Your task to perform on an android device: find snoozed emails in the gmail app Image 0: 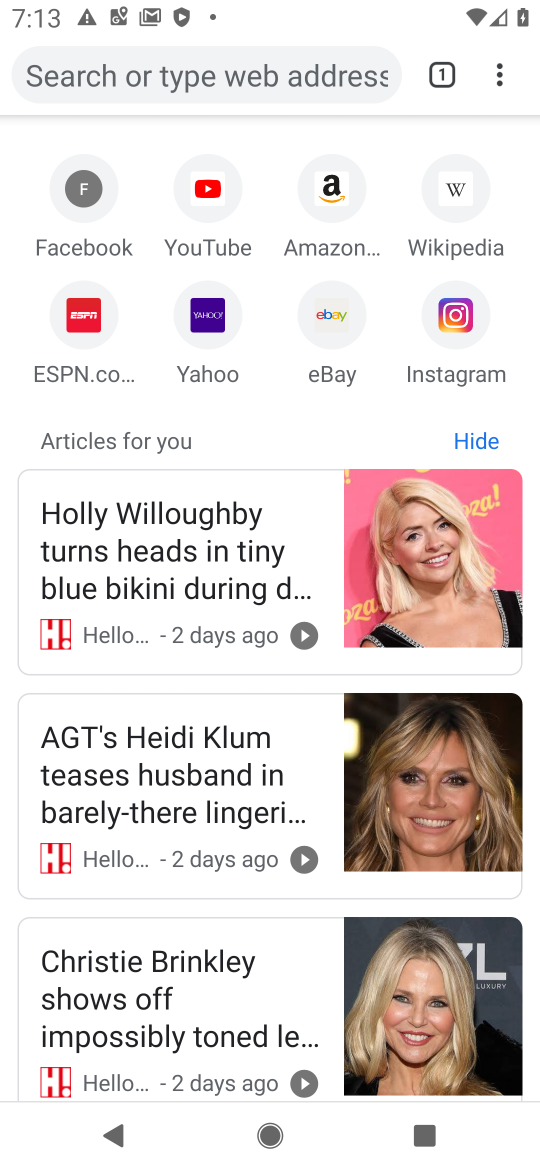
Step 0: press home button
Your task to perform on an android device: find snoozed emails in the gmail app Image 1: 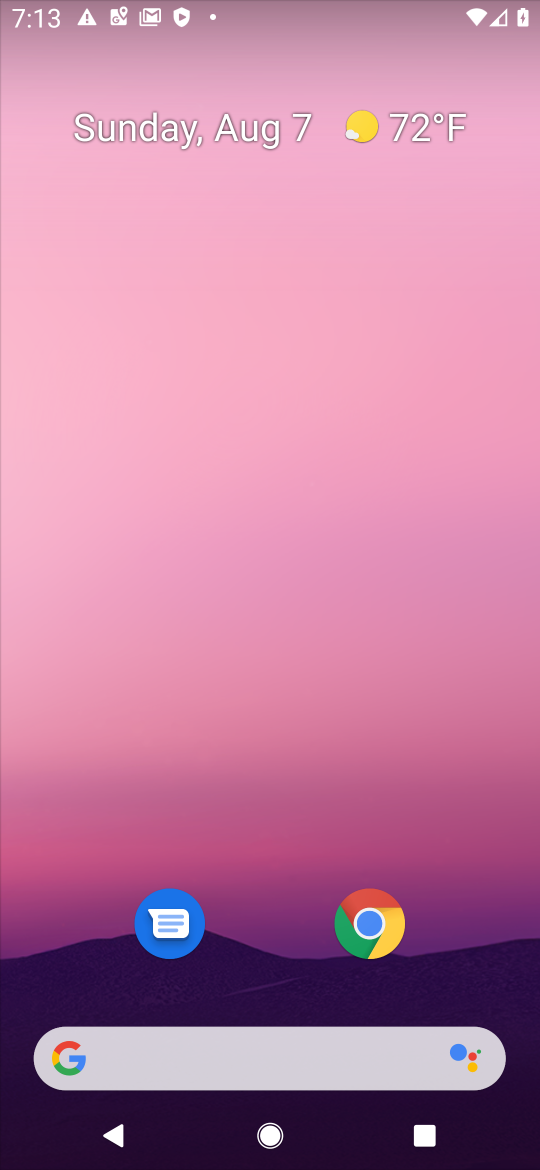
Step 1: drag from (508, 1055) to (342, 63)
Your task to perform on an android device: find snoozed emails in the gmail app Image 2: 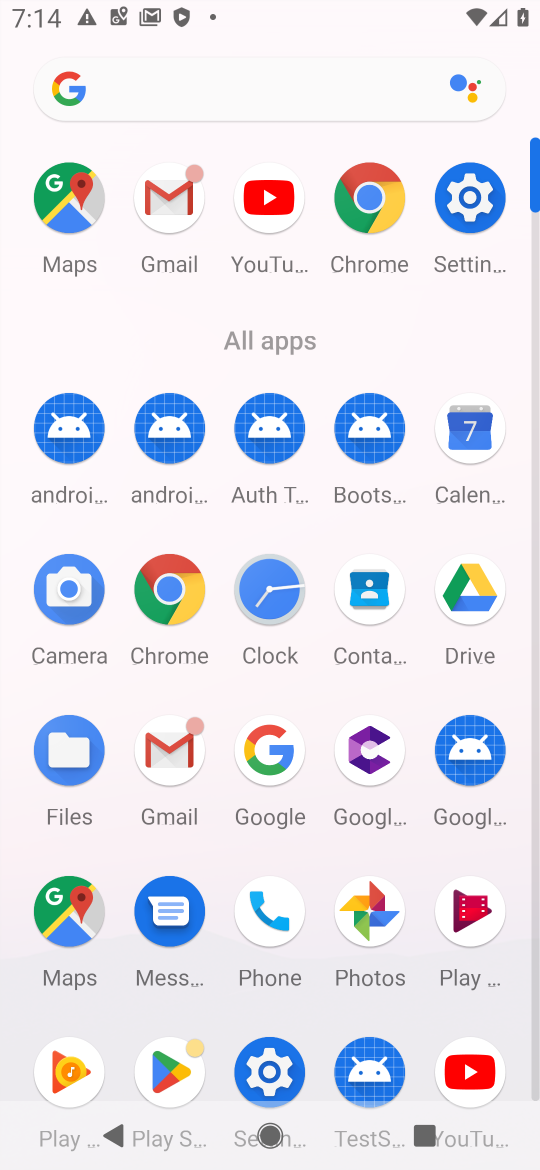
Step 2: click (161, 770)
Your task to perform on an android device: find snoozed emails in the gmail app Image 3: 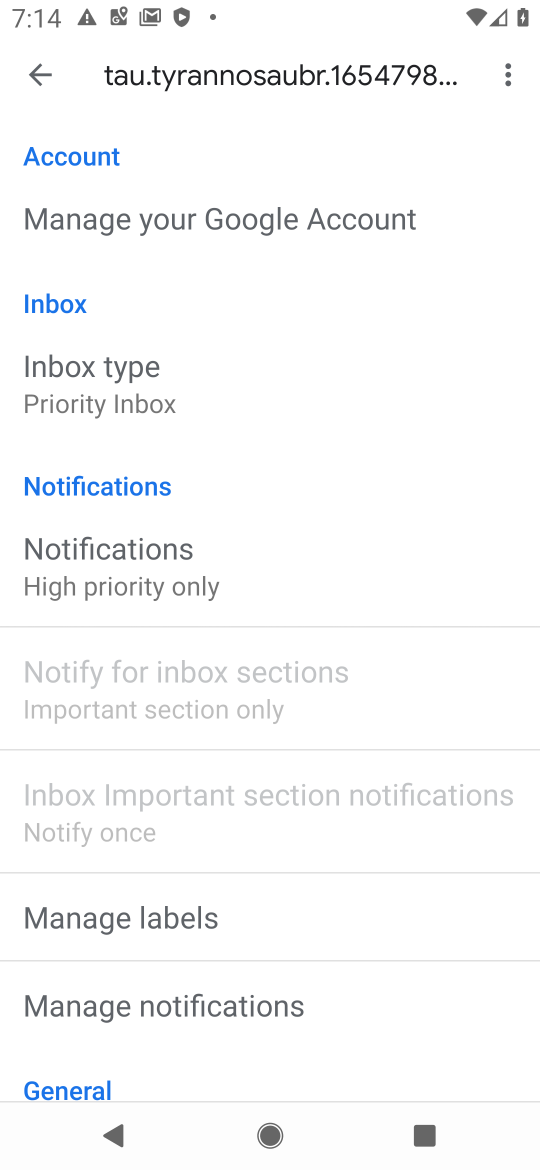
Step 3: press back button
Your task to perform on an android device: find snoozed emails in the gmail app Image 4: 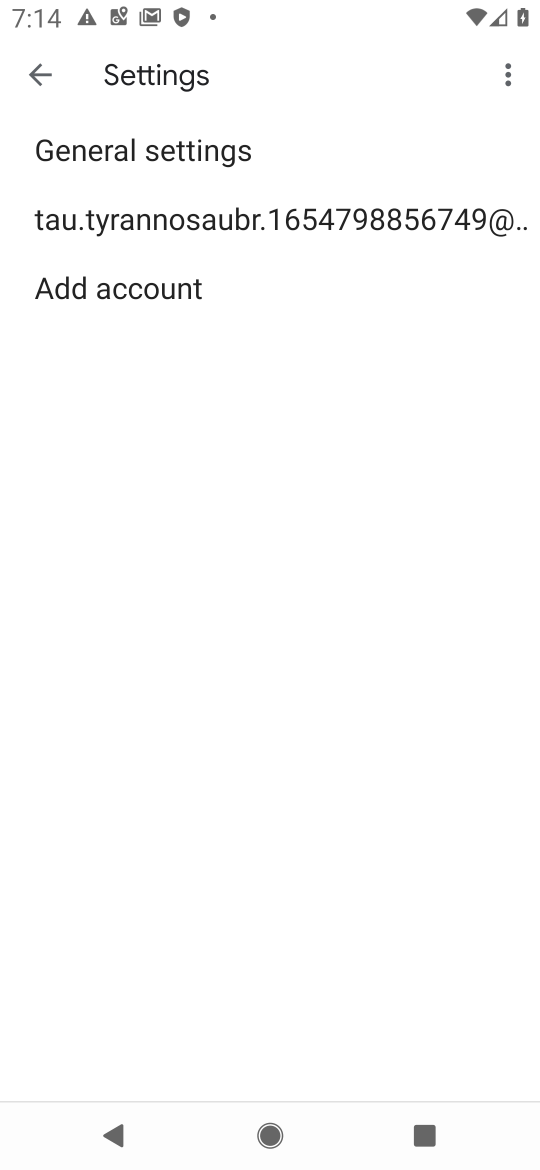
Step 4: press back button
Your task to perform on an android device: find snoozed emails in the gmail app Image 5: 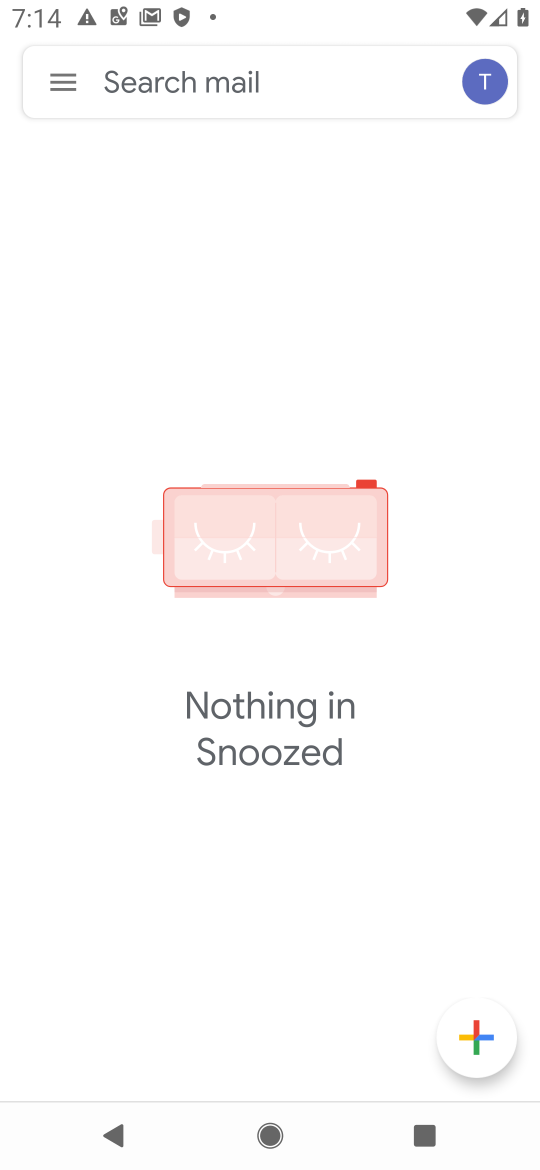
Step 5: click (48, 74)
Your task to perform on an android device: find snoozed emails in the gmail app Image 6: 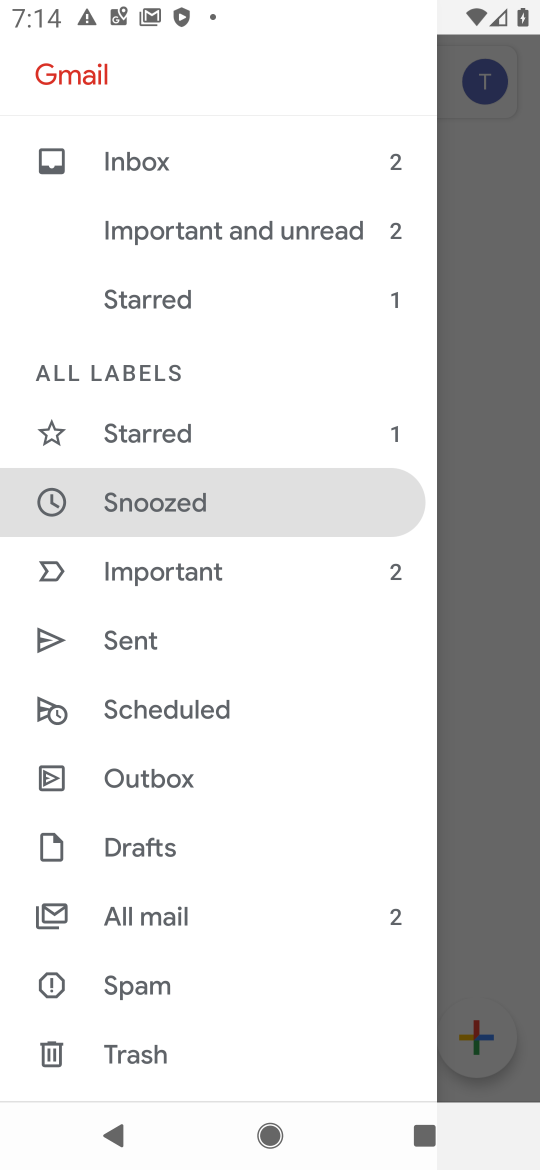
Step 6: click (147, 512)
Your task to perform on an android device: find snoozed emails in the gmail app Image 7: 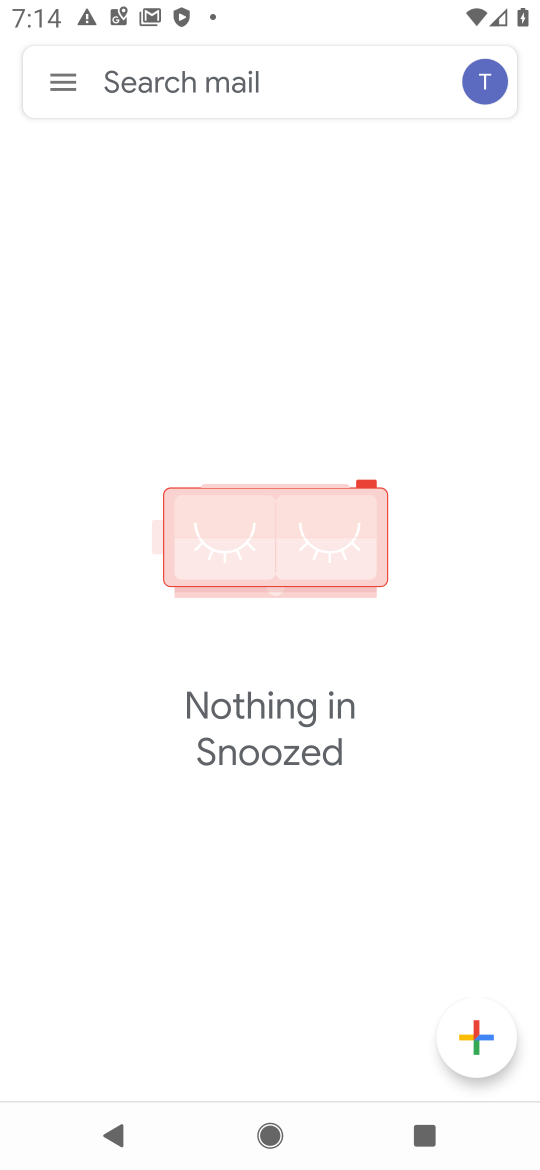
Step 7: task complete